Your task to perform on an android device: Show me popular games on the Play Store Image 0: 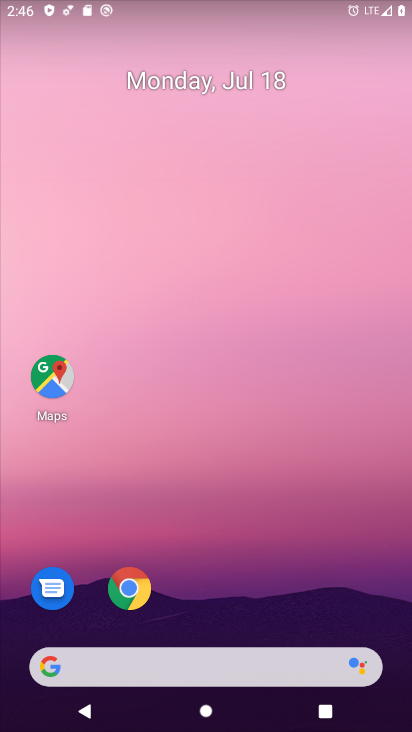
Step 0: drag from (208, 568) to (247, 78)
Your task to perform on an android device: Show me popular games on the Play Store Image 1: 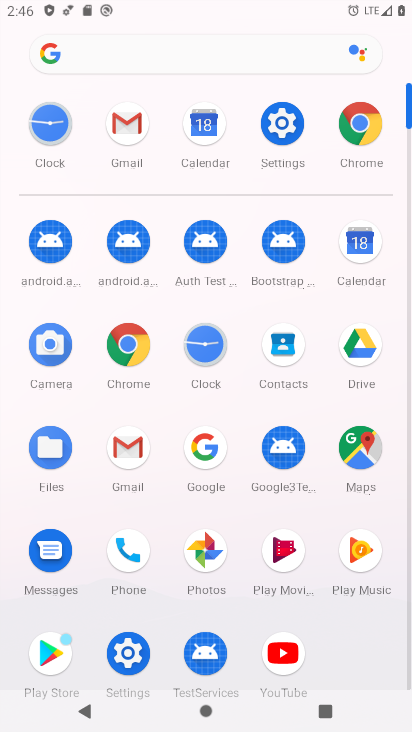
Step 1: click (51, 656)
Your task to perform on an android device: Show me popular games on the Play Store Image 2: 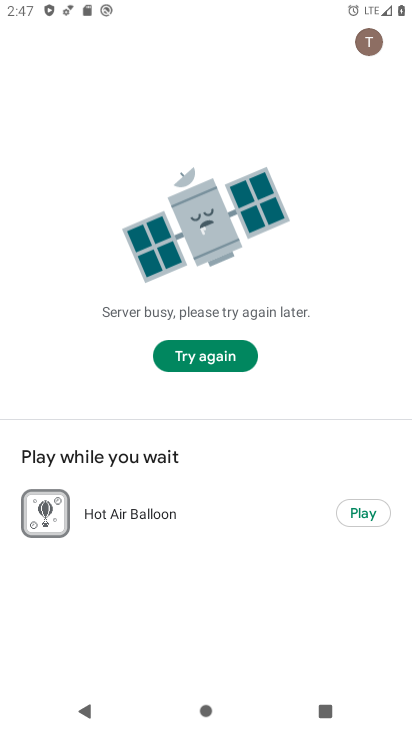
Step 2: click (227, 366)
Your task to perform on an android device: Show me popular games on the Play Store Image 3: 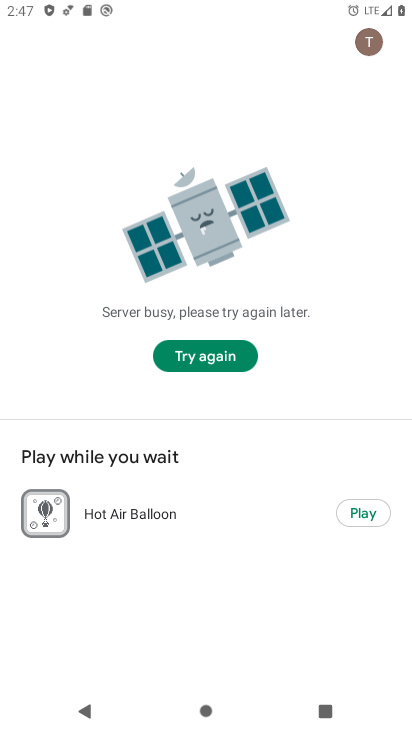
Step 3: click (192, 353)
Your task to perform on an android device: Show me popular games on the Play Store Image 4: 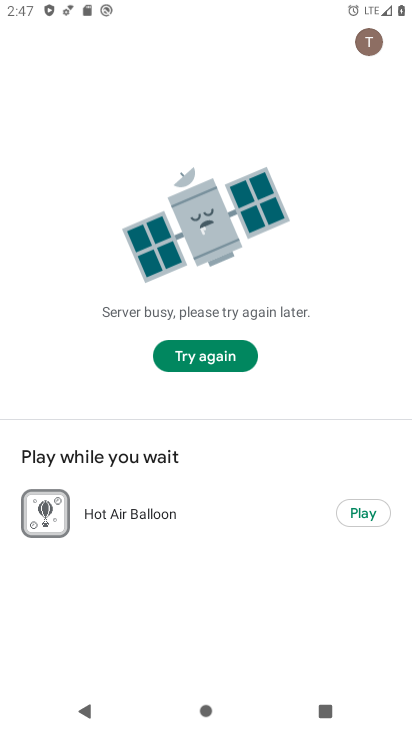
Step 4: task complete